Your task to perform on an android device: Search for alienware aurora on bestbuy, select the first entry, add it to the cart, then select checkout. Image 0: 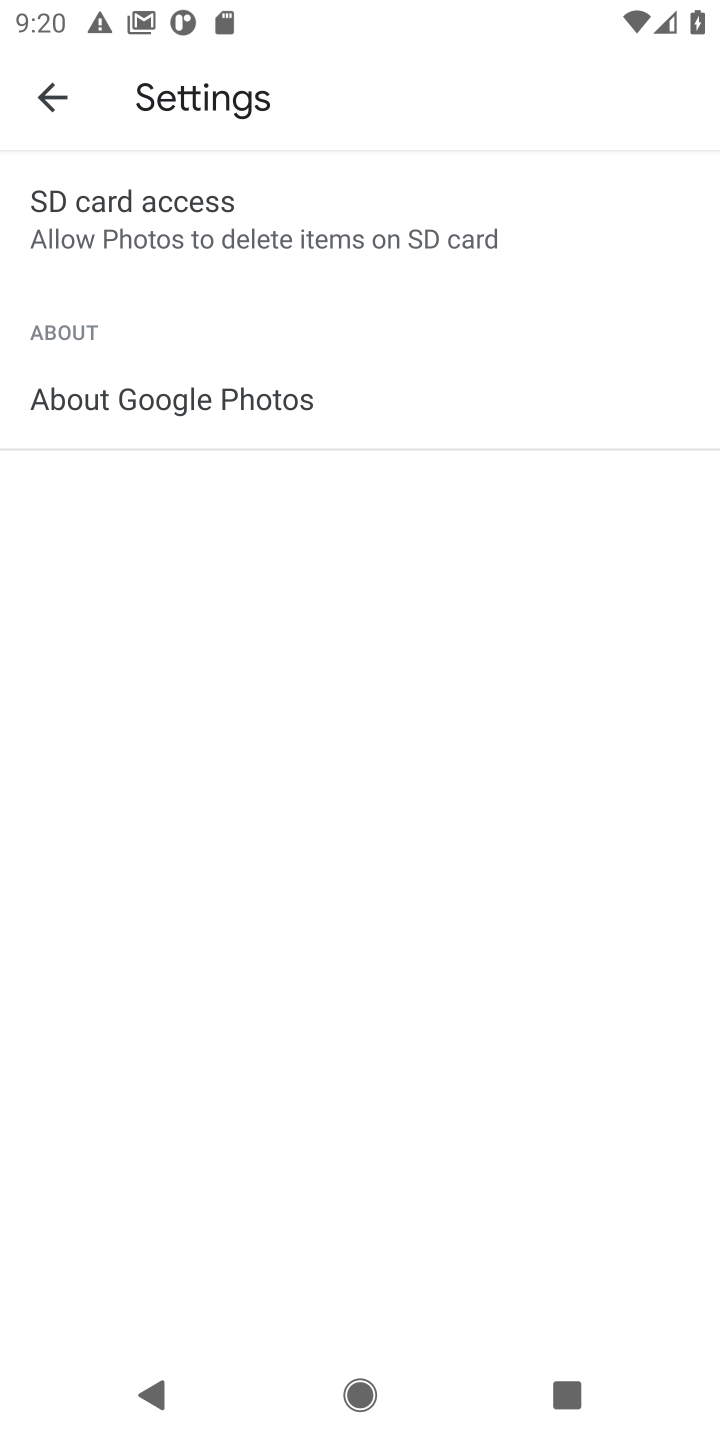
Step 0: press home button
Your task to perform on an android device: Search for alienware aurora on bestbuy, select the first entry, add it to the cart, then select checkout. Image 1: 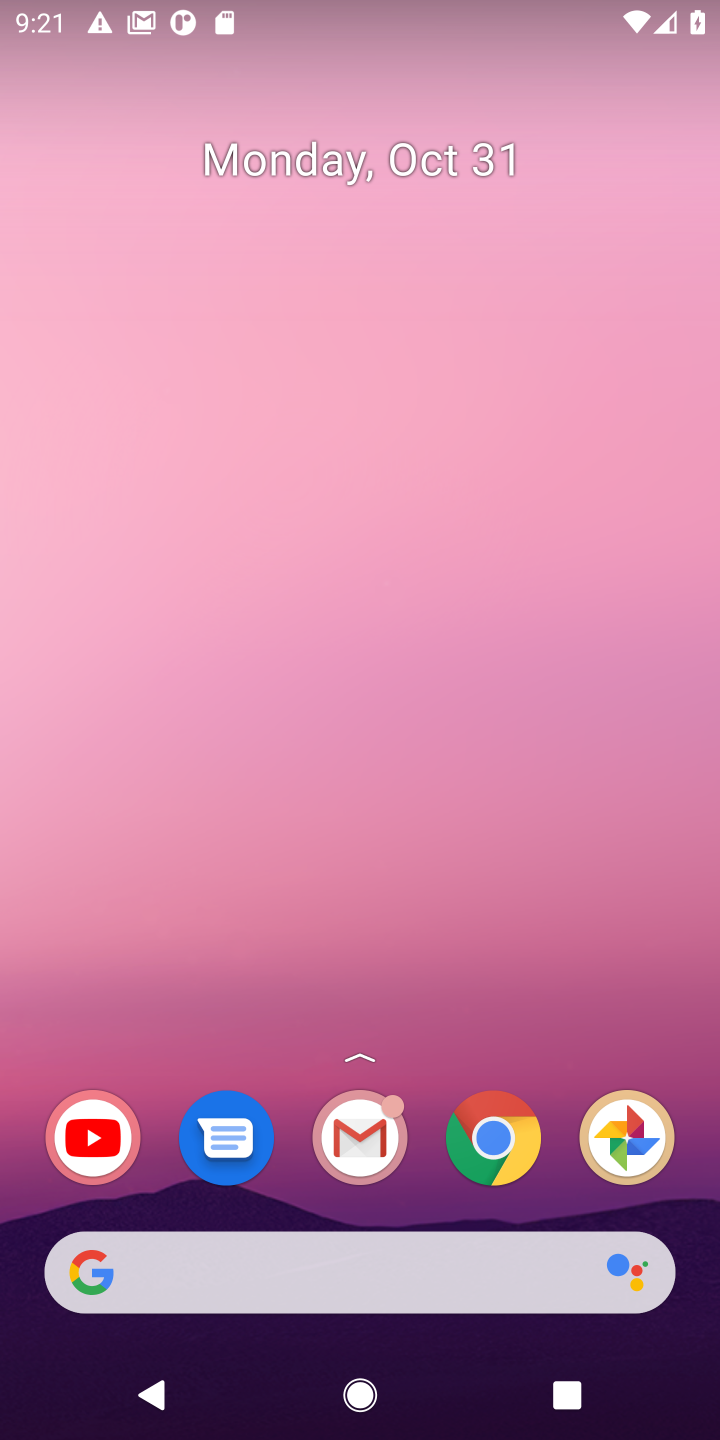
Step 1: drag from (462, 1335) to (337, 159)
Your task to perform on an android device: Search for alienware aurora on bestbuy, select the first entry, add it to the cart, then select checkout. Image 2: 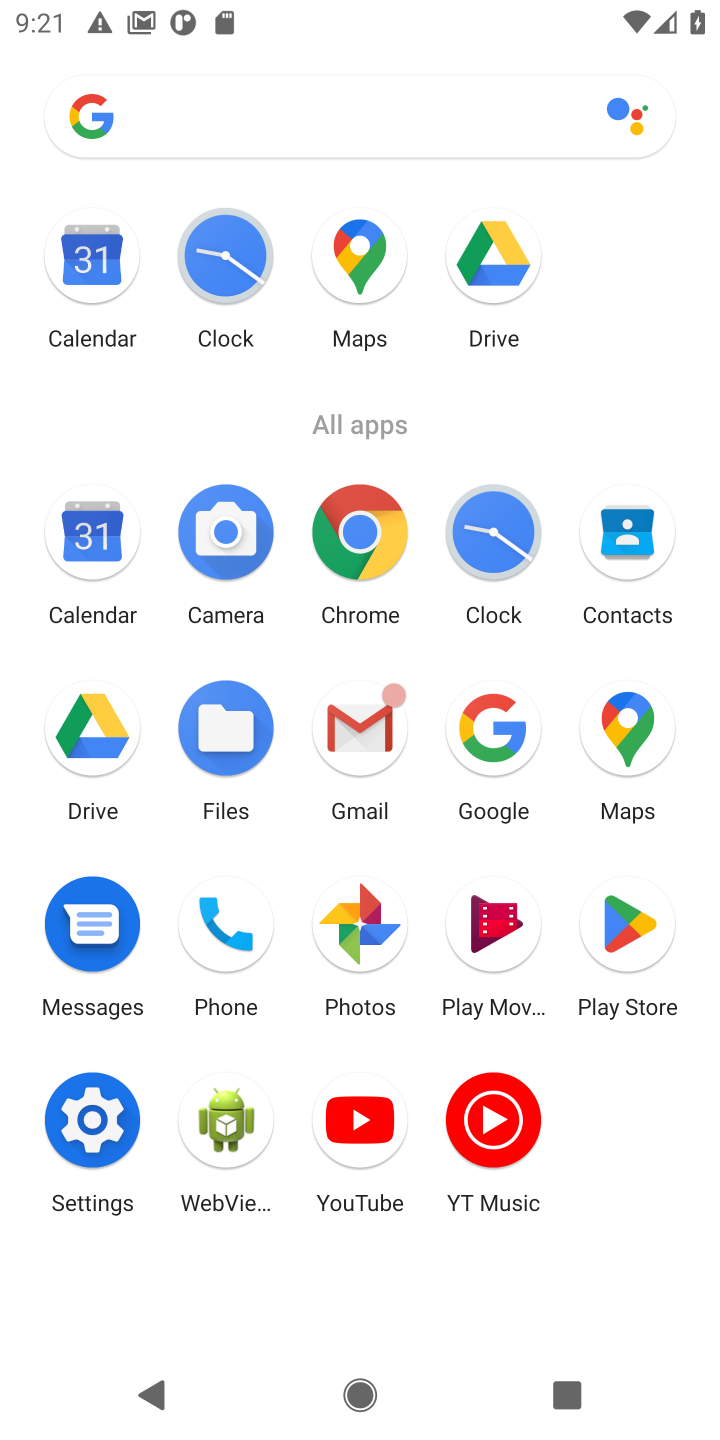
Step 2: click (367, 515)
Your task to perform on an android device: Search for alienware aurora on bestbuy, select the first entry, add it to the cart, then select checkout. Image 3: 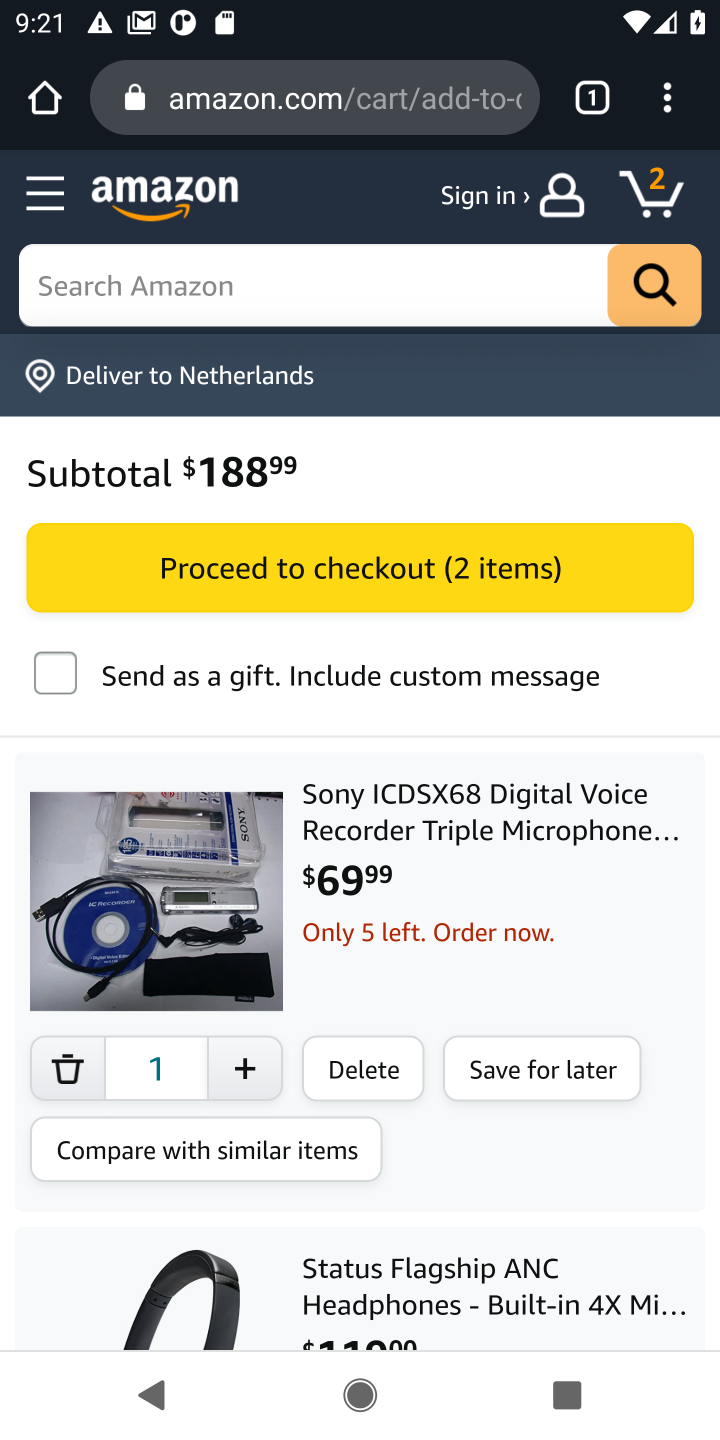
Step 3: click (282, 269)
Your task to perform on an android device: Search for alienware aurora on bestbuy, select the first entry, add it to the cart, then select checkout. Image 4: 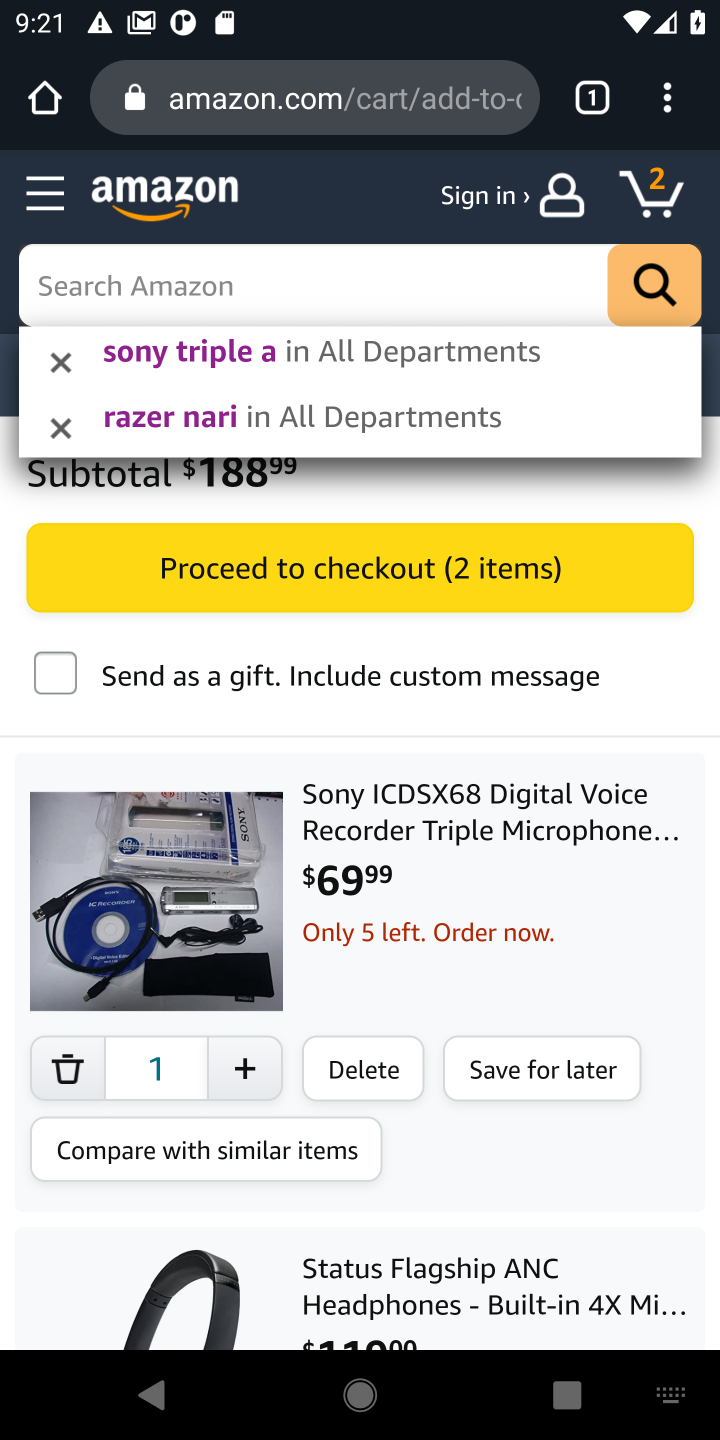
Step 4: click (321, 103)
Your task to perform on an android device: Search for alienware aurora on bestbuy, select the first entry, add it to the cart, then select checkout. Image 5: 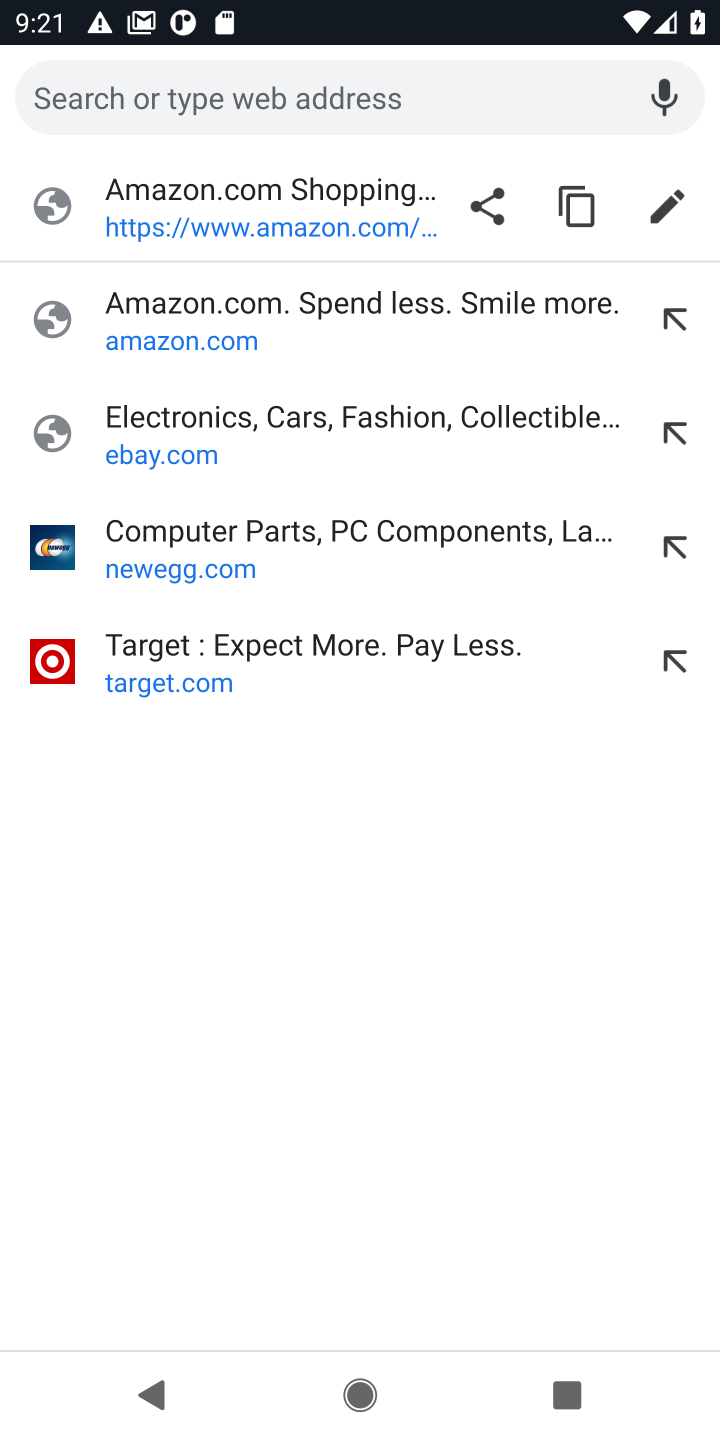
Step 5: type " bestbuy"
Your task to perform on an android device: Search for alienware aurora on bestbuy, select the first entry, add it to the cart, then select checkout. Image 6: 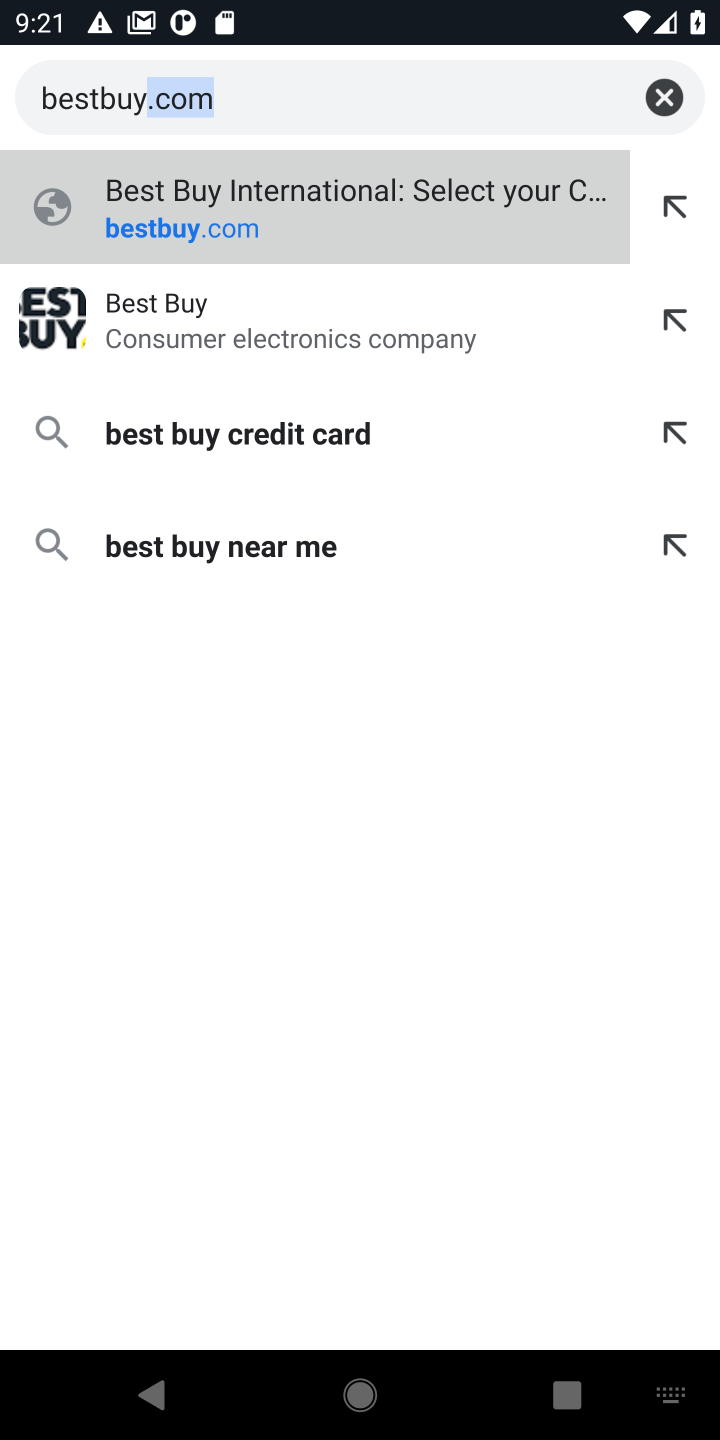
Step 6: click (162, 218)
Your task to perform on an android device: Search for alienware aurora on bestbuy, select the first entry, add it to the cart, then select checkout. Image 7: 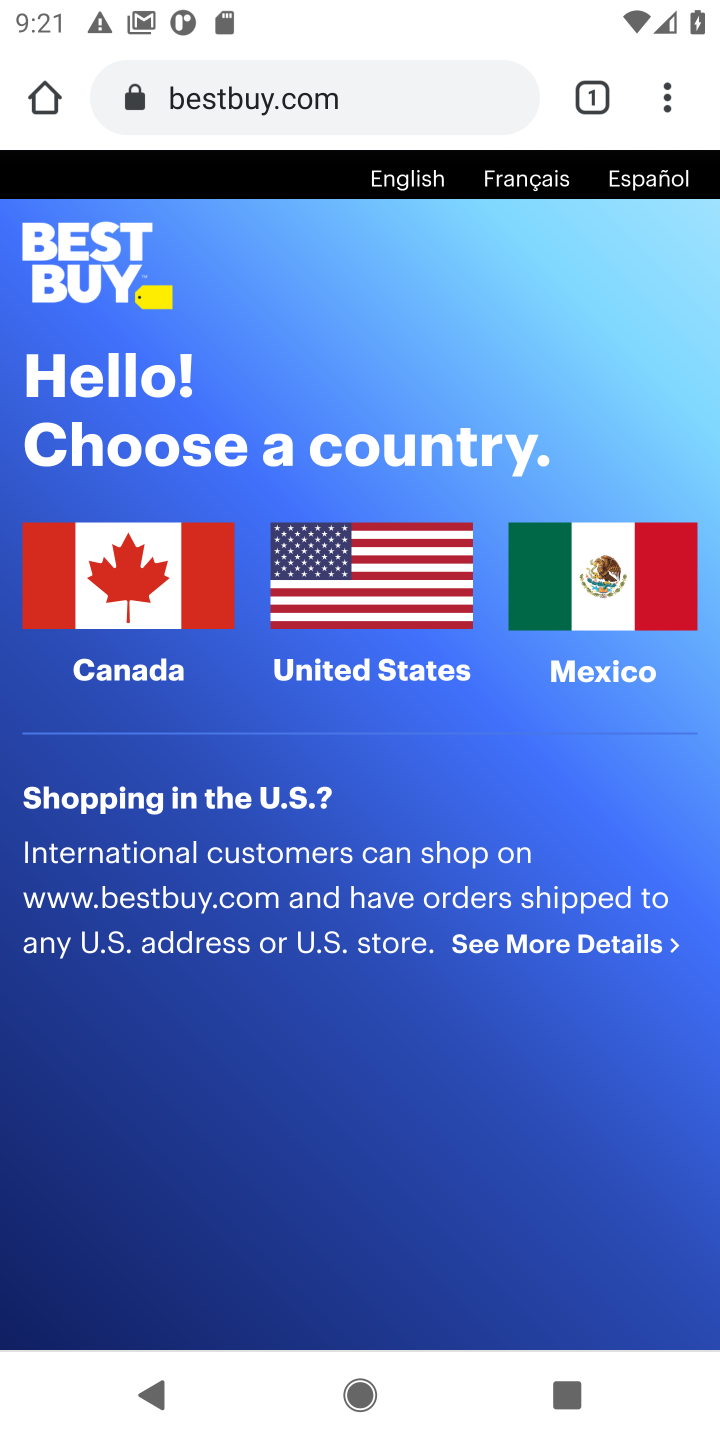
Step 7: click (377, 593)
Your task to perform on an android device: Search for alienware aurora on bestbuy, select the first entry, add it to the cart, then select checkout. Image 8: 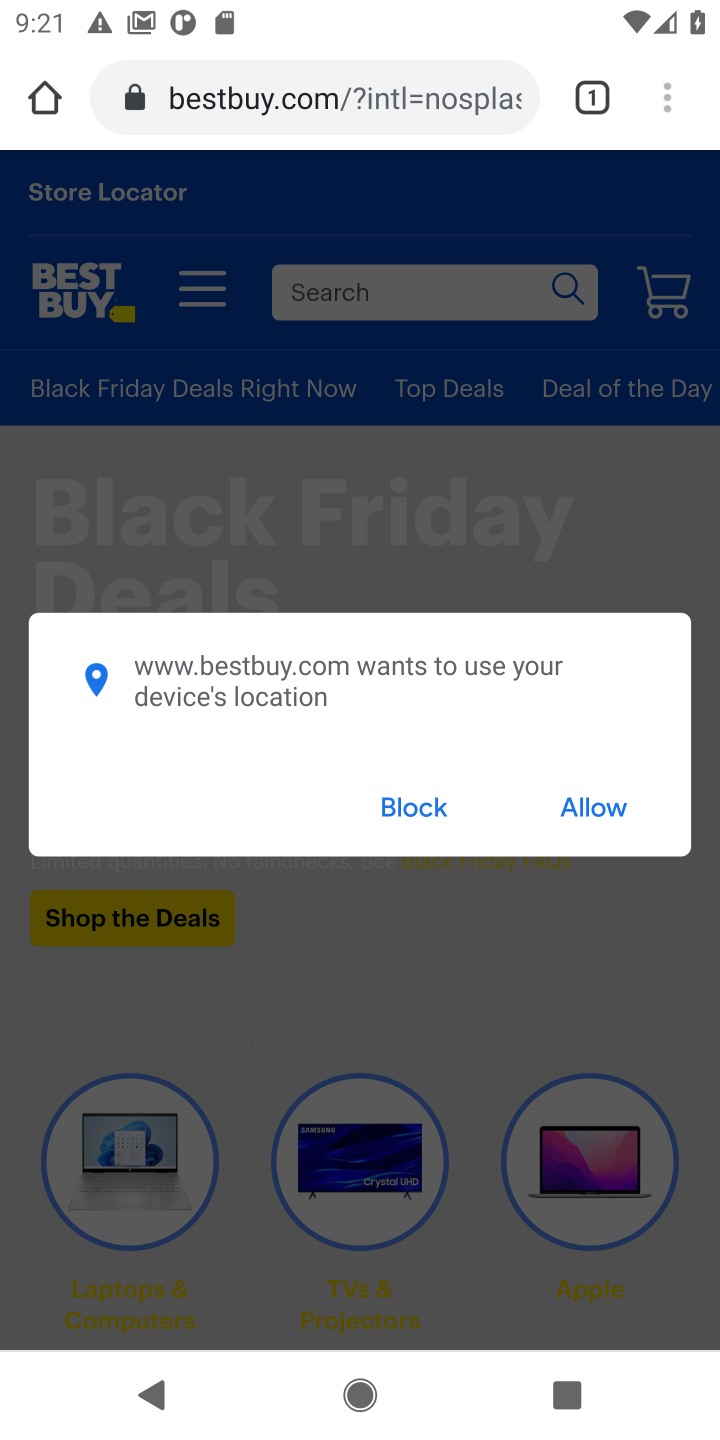
Step 8: click (605, 811)
Your task to perform on an android device: Search for alienware aurora on bestbuy, select the first entry, add it to the cart, then select checkout. Image 9: 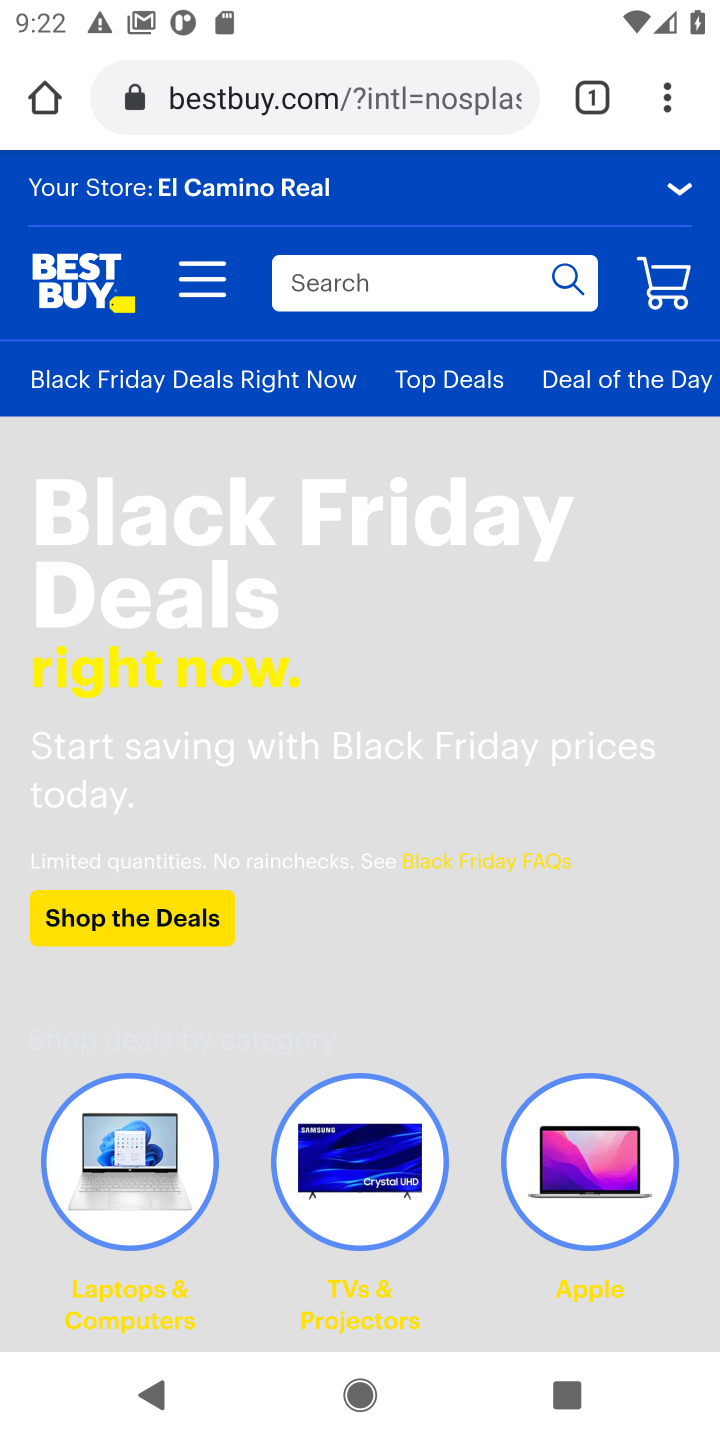
Step 9: drag from (452, 1015) to (552, 1187)
Your task to perform on an android device: Search for alienware aurora on bestbuy, select the first entry, add it to the cart, then select checkout. Image 10: 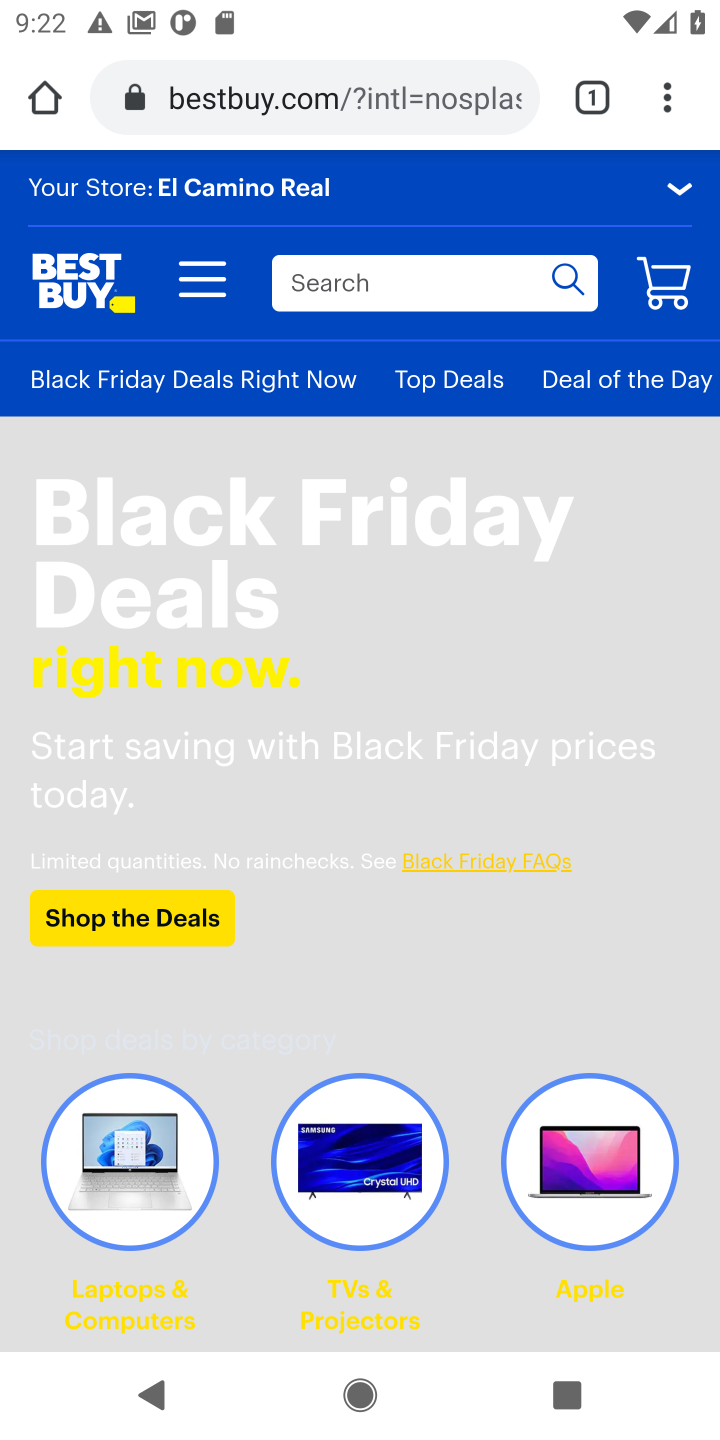
Step 10: click (366, 291)
Your task to perform on an android device: Search for alienware aurora on bestbuy, select the first entry, add it to the cart, then select checkout. Image 11: 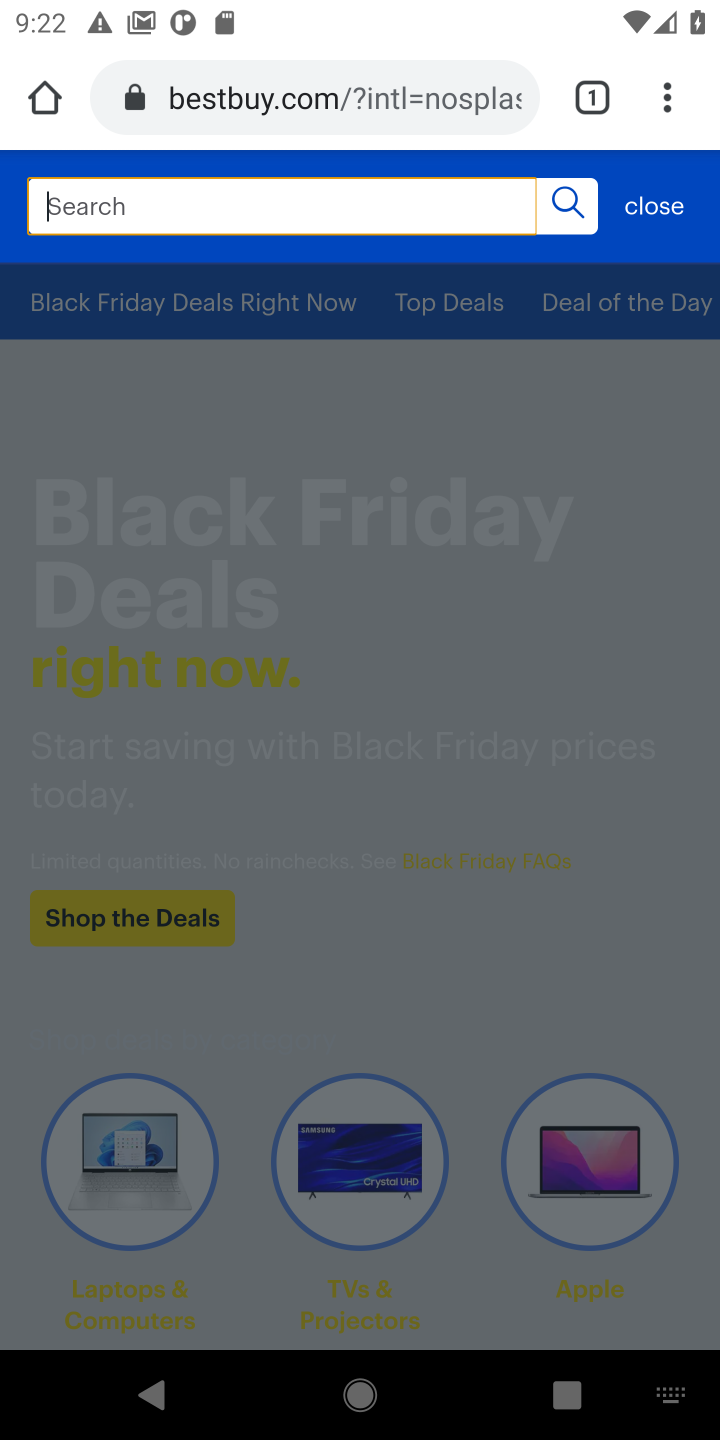
Step 11: type "alienware aurora"
Your task to perform on an android device: Search for alienware aurora on bestbuy, select the first entry, add it to the cart, then select checkout. Image 12: 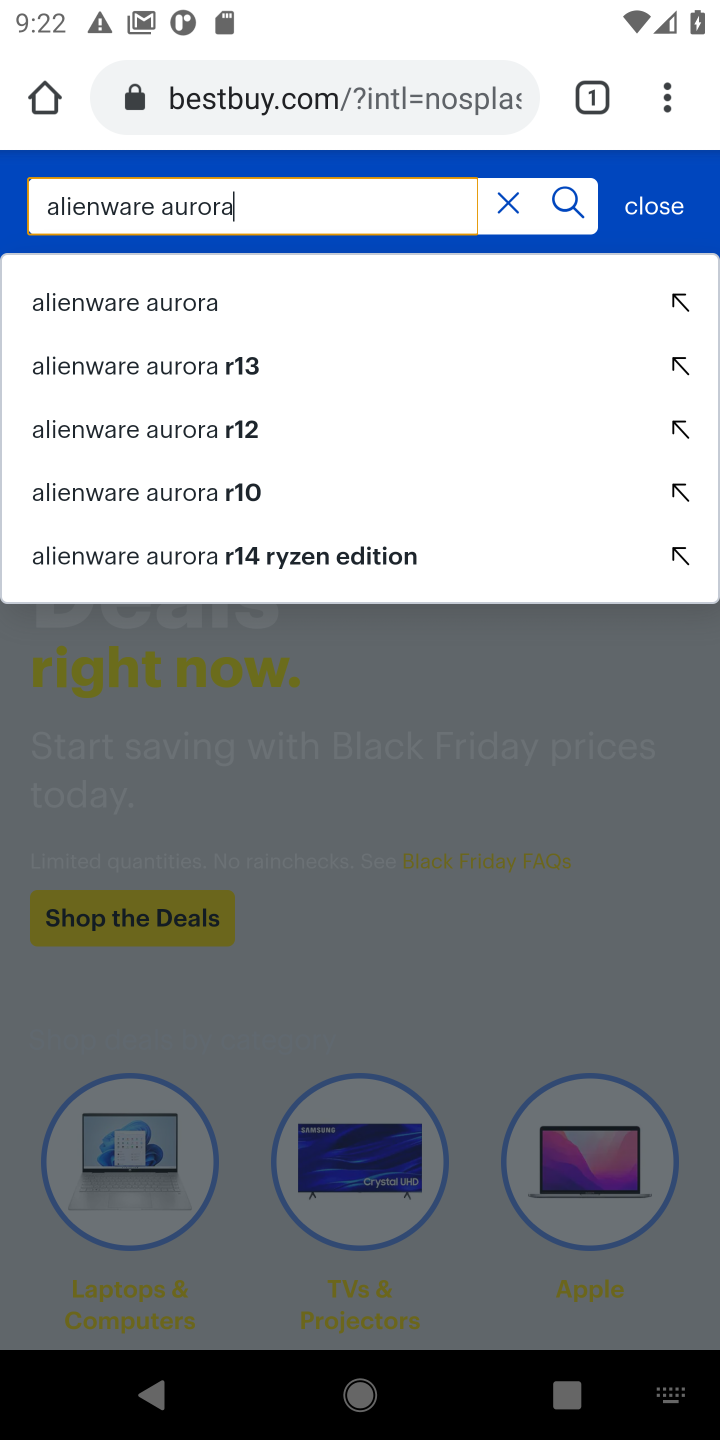
Step 12: click (118, 303)
Your task to perform on an android device: Search for alienware aurora on bestbuy, select the first entry, add it to the cart, then select checkout. Image 13: 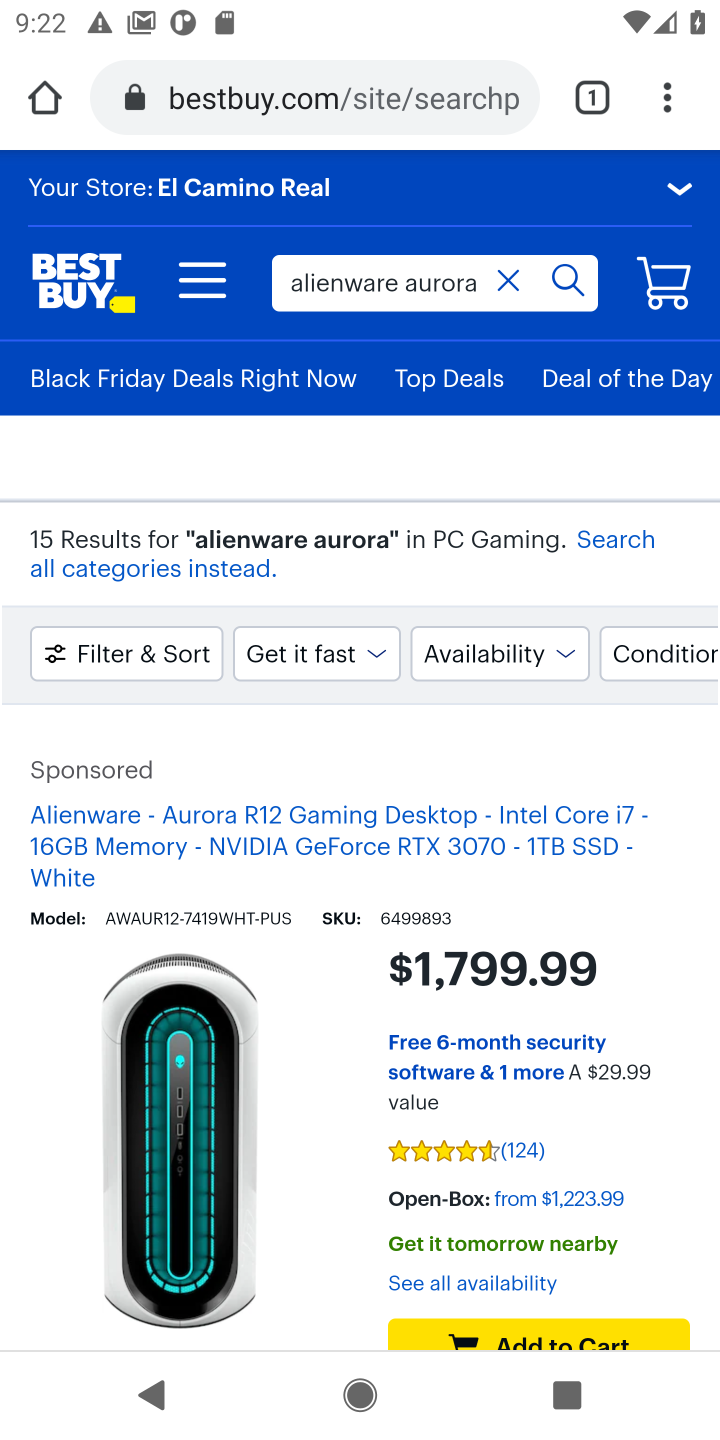
Step 13: click (112, 1063)
Your task to perform on an android device: Search for alienware aurora on bestbuy, select the first entry, add it to the cart, then select checkout. Image 14: 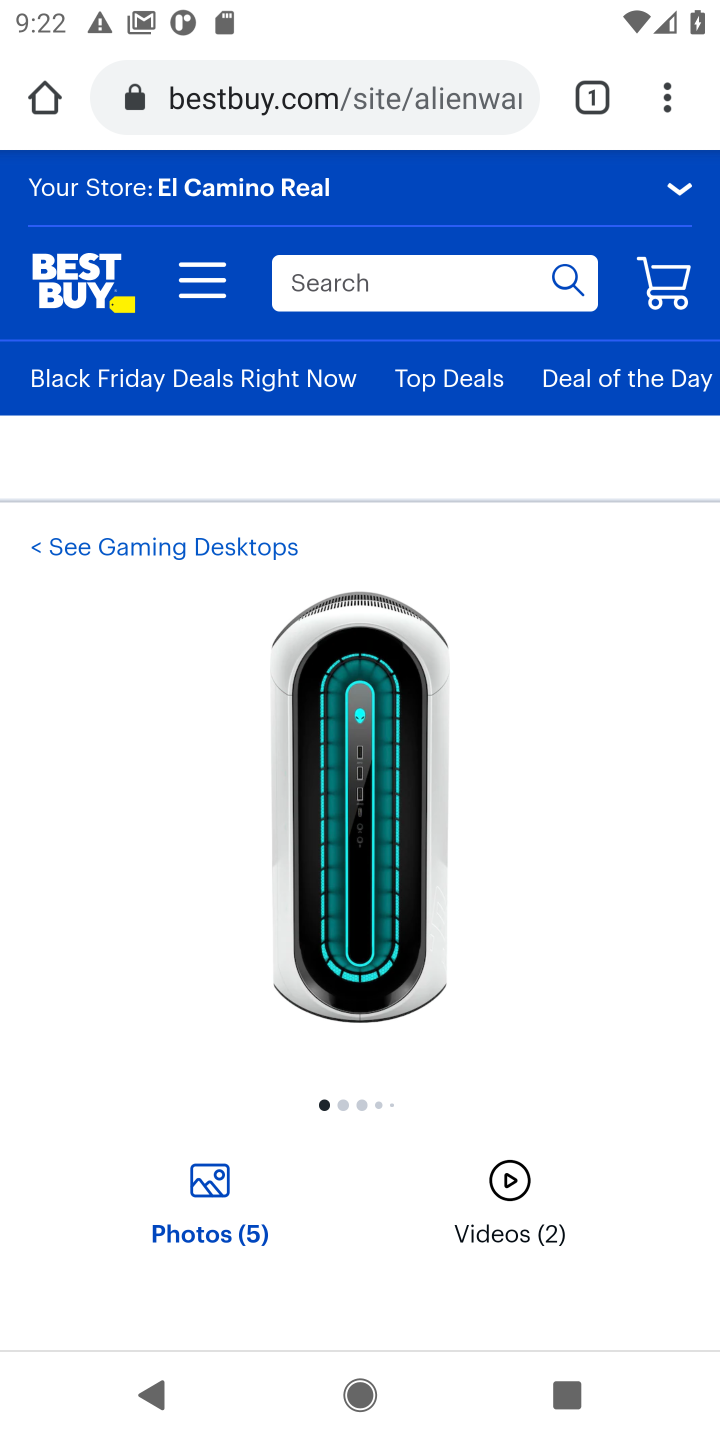
Step 14: drag from (511, 1070) to (444, 547)
Your task to perform on an android device: Search for alienware aurora on bestbuy, select the first entry, add it to the cart, then select checkout. Image 15: 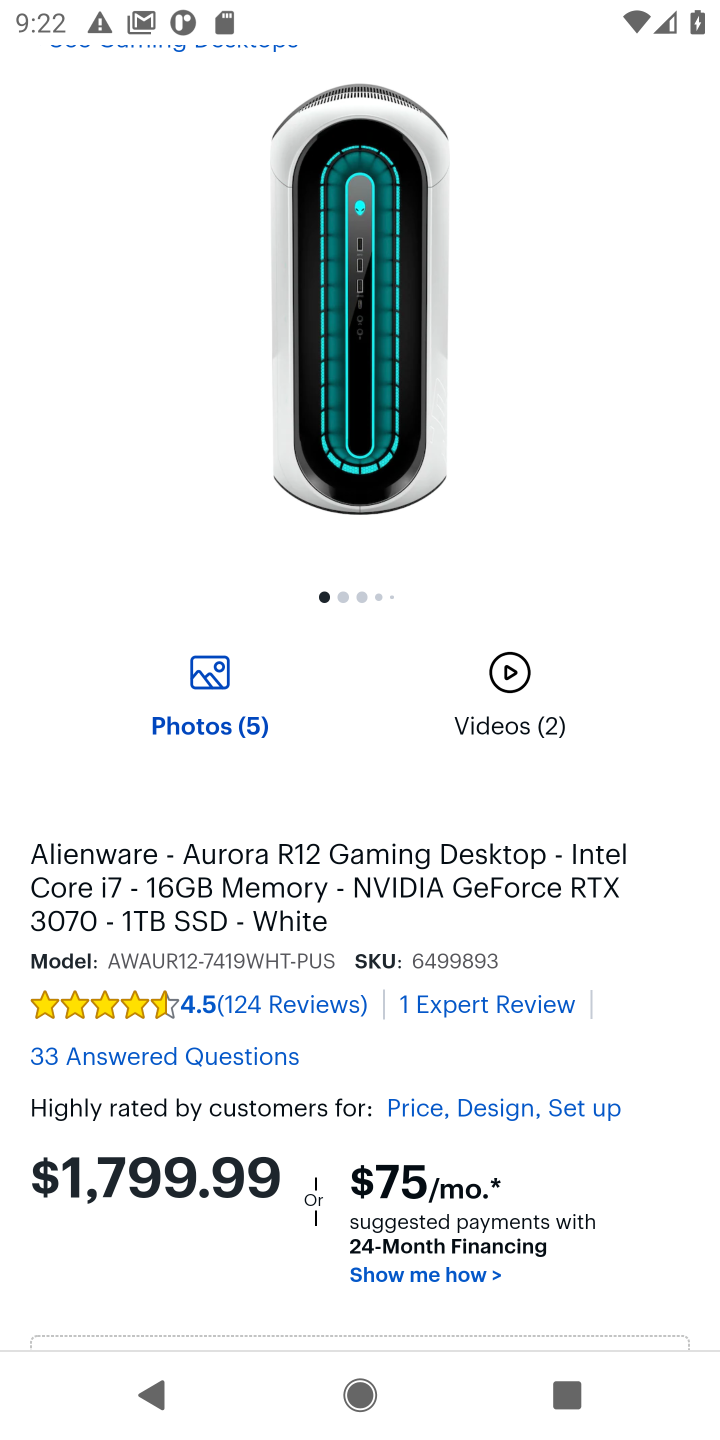
Step 15: drag from (441, 767) to (490, 356)
Your task to perform on an android device: Search for alienware aurora on bestbuy, select the first entry, add it to the cart, then select checkout. Image 16: 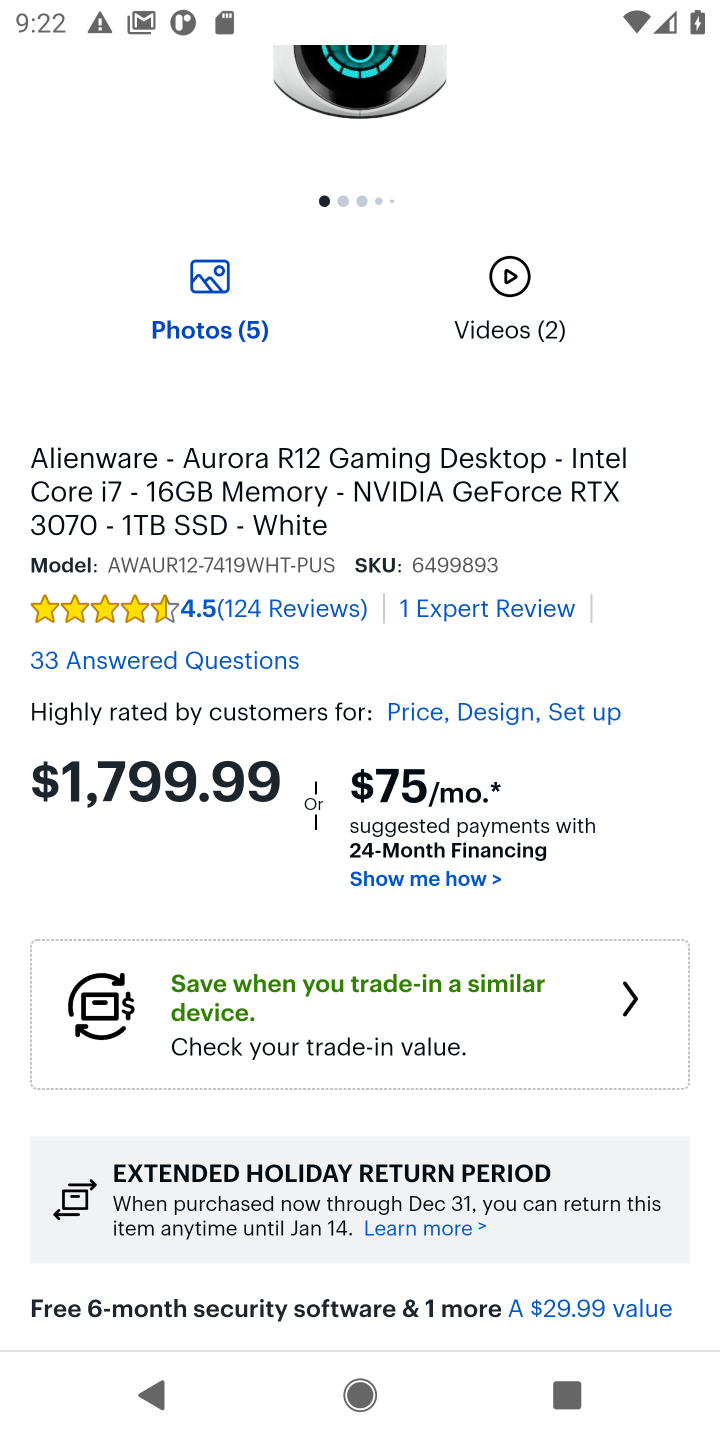
Step 16: drag from (381, 1159) to (462, 435)
Your task to perform on an android device: Search for alienware aurora on bestbuy, select the first entry, add it to the cart, then select checkout. Image 17: 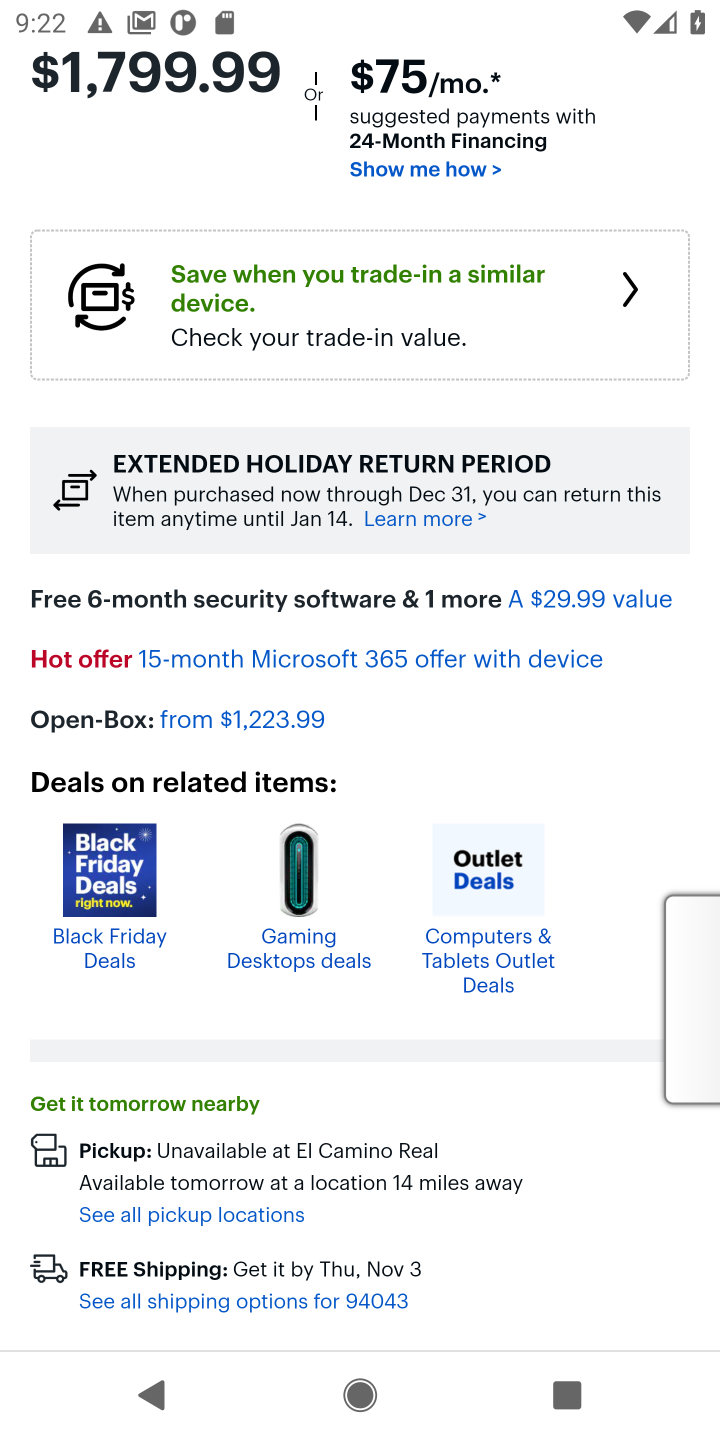
Step 17: drag from (468, 991) to (530, 289)
Your task to perform on an android device: Search for alienware aurora on bestbuy, select the first entry, add it to the cart, then select checkout. Image 18: 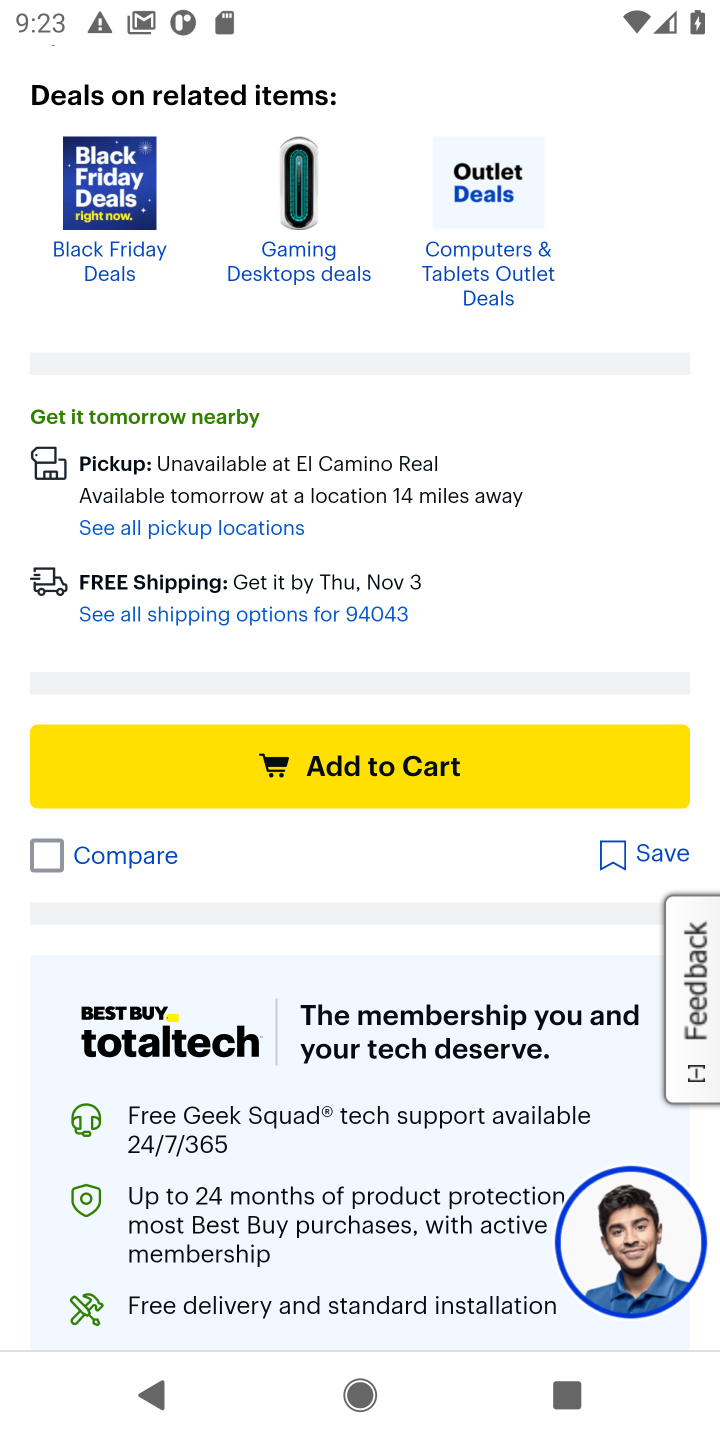
Step 18: click (348, 752)
Your task to perform on an android device: Search for alienware aurora on bestbuy, select the first entry, add it to the cart, then select checkout. Image 19: 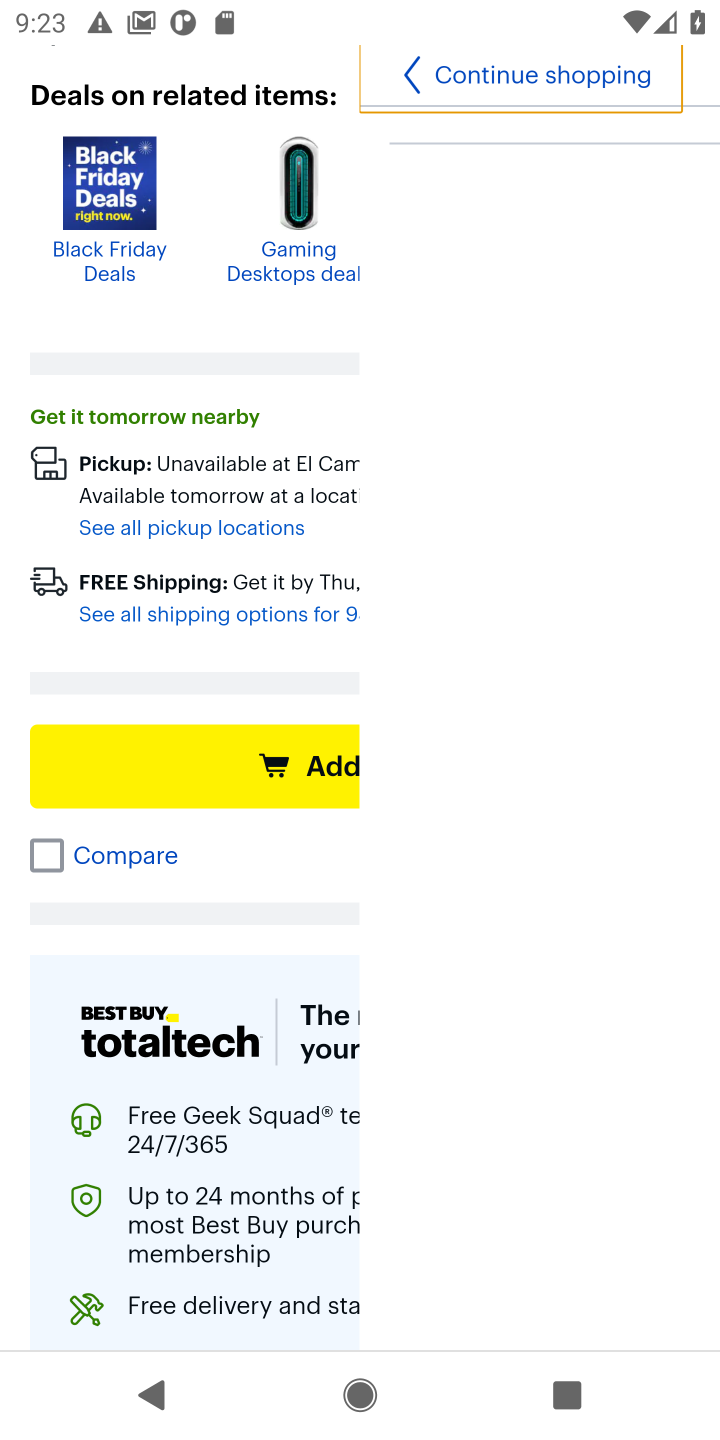
Step 19: task complete